Your task to perform on an android device: toggle priority inbox in the gmail app Image 0: 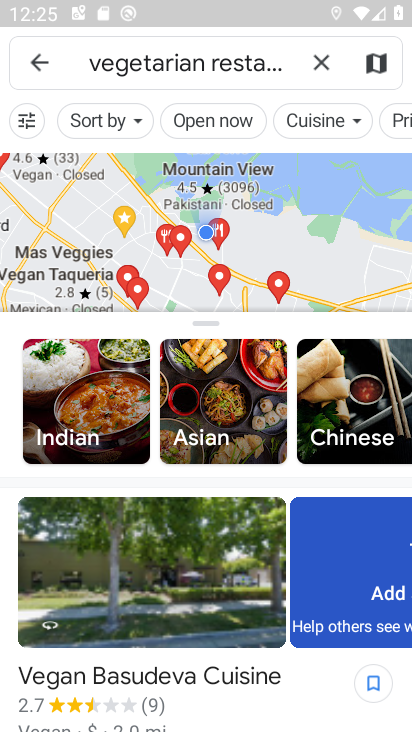
Step 0: press home button
Your task to perform on an android device: toggle priority inbox in the gmail app Image 1: 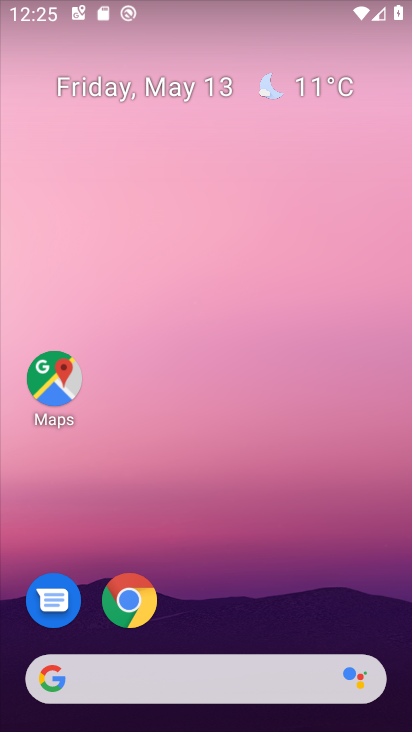
Step 1: drag from (205, 586) to (273, 44)
Your task to perform on an android device: toggle priority inbox in the gmail app Image 2: 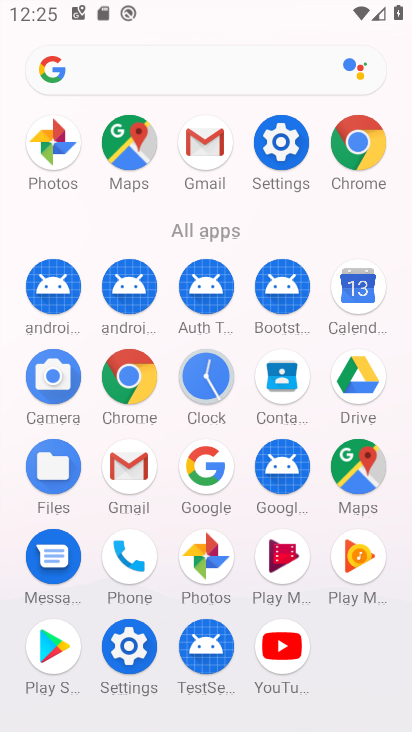
Step 2: click (206, 128)
Your task to perform on an android device: toggle priority inbox in the gmail app Image 3: 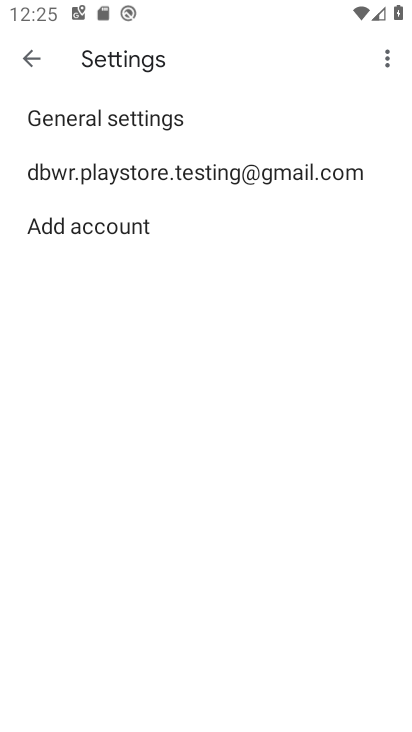
Step 3: click (173, 169)
Your task to perform on an android device: toggle priority inbox in the gmail app Image 4: 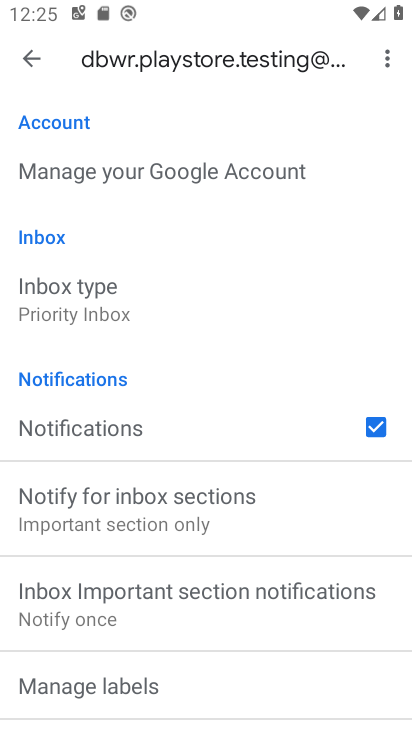
Step 4: click (119, 312)
Your task to perform on an android device: toggle priority inbox in the gmail app Image 5: 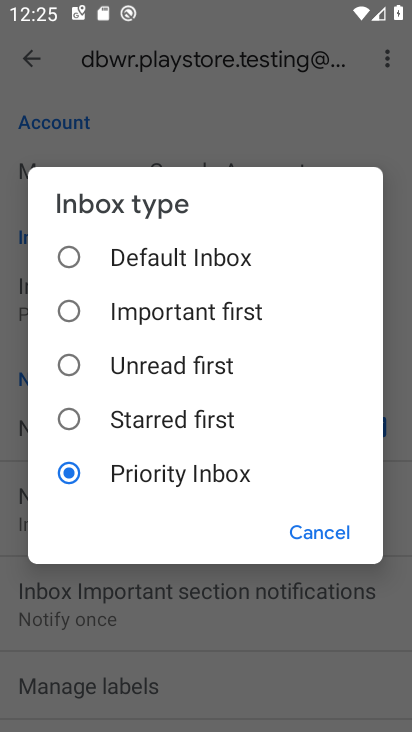
Step 5: task complete